Your task to perform on an android device: turn on data saver in the chrome app Image 0: 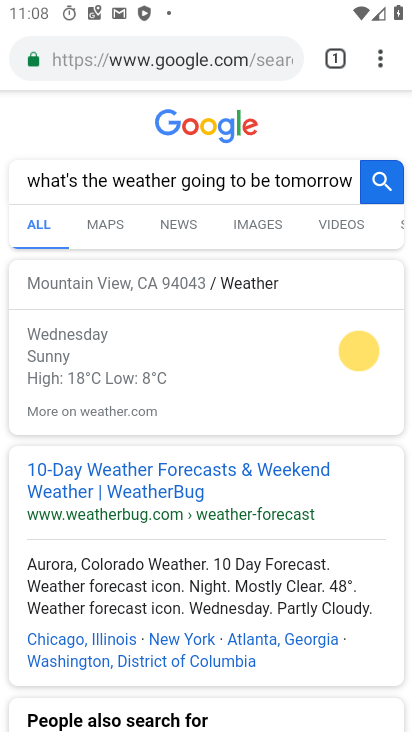
Step 0: drag from (375, 59) to (156, 620)
Your task to perform on an android device: turn on data saver in the chrome app Image 1: 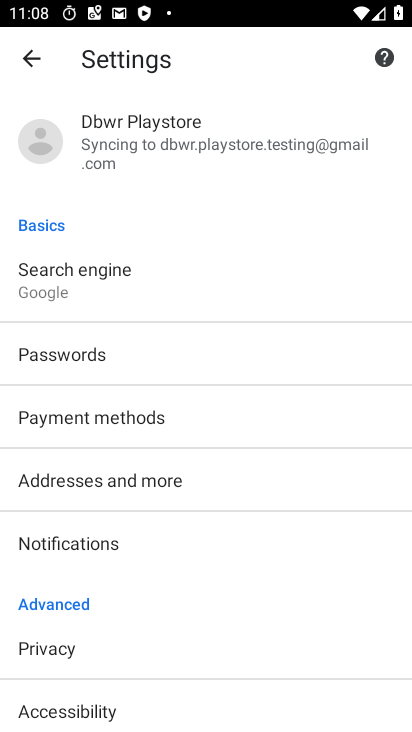
Step 1: drag from (194, 530) to (237, 186)
Your task to perform on an android device: turn on data saver in the chrome app Image 2: 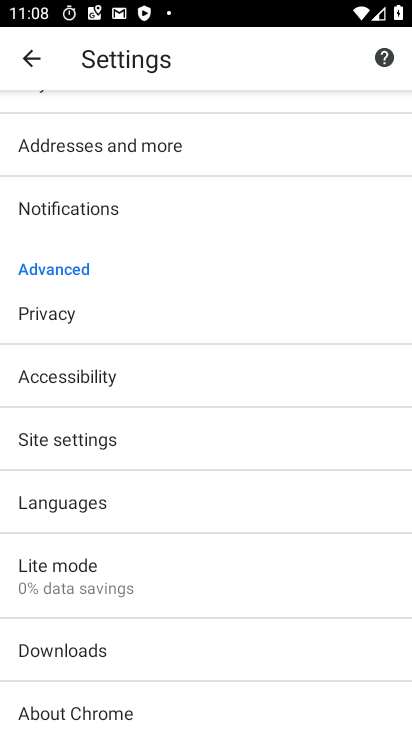
Step 2: drag from (200, 580) to (251, 219)
Your task to perform on an android device: turn on data saver in the chrome app Image 3: 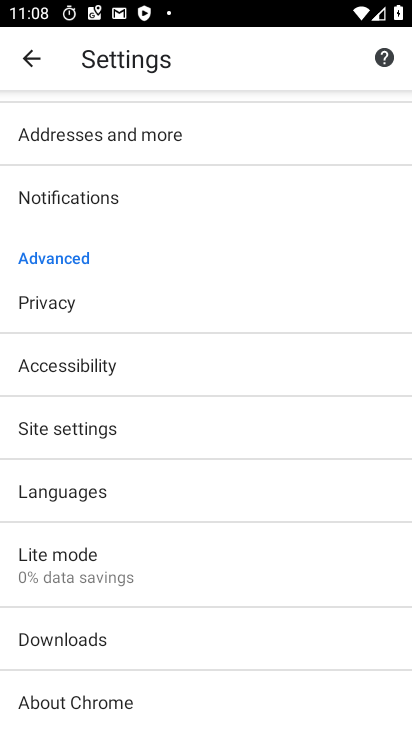
Step 3: drag from (198, 566) to (245, 216)
Your task to perform on an android device: turn on data saver in the chrome app Image 4: 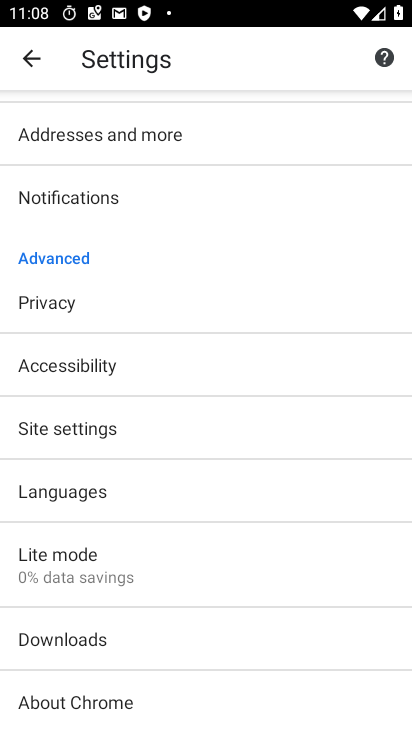
Step 4: click (137, 556)
Your task to perform on an android device: turn on data saver in the chrome app Image 5: 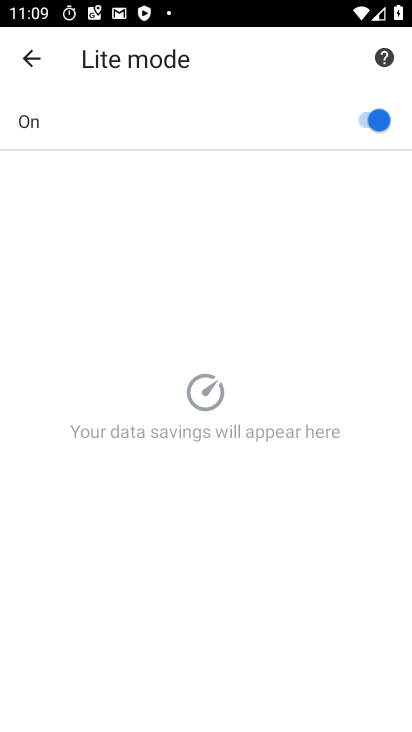
Step 5: task complete